Your task to perform on an android device: open app "Booking.com: Hotels and more" (install if not already installed) and enter user name: "misting@outlook.com" and password: "blandly" Image 0: 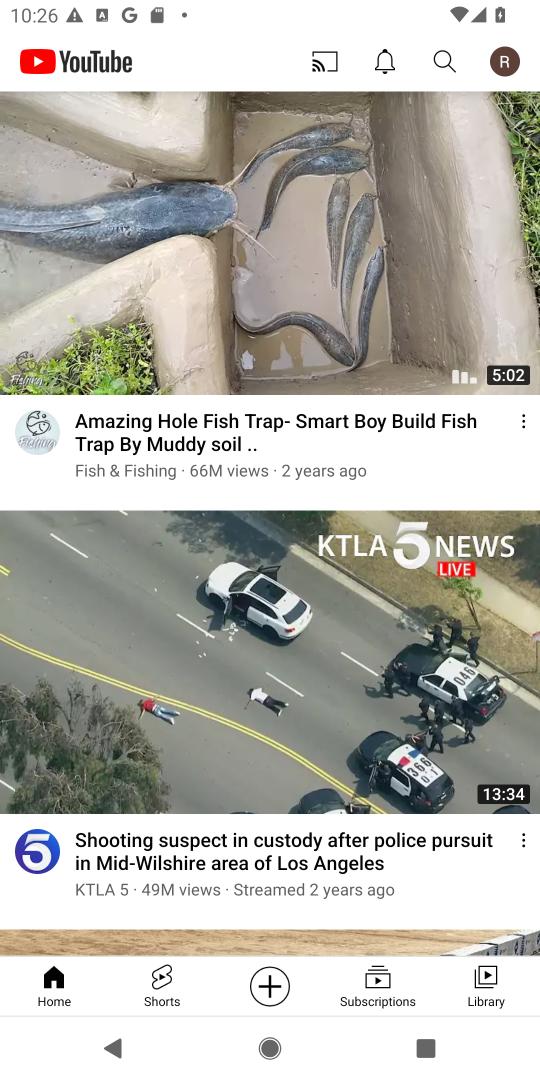
Step 0: press home button
Your task to perform on an android device: open app "Booking.com: Hotels and more" (install if not already installed) and enter user name: "misting@outlook.com" and password: "blandly" Image 1: 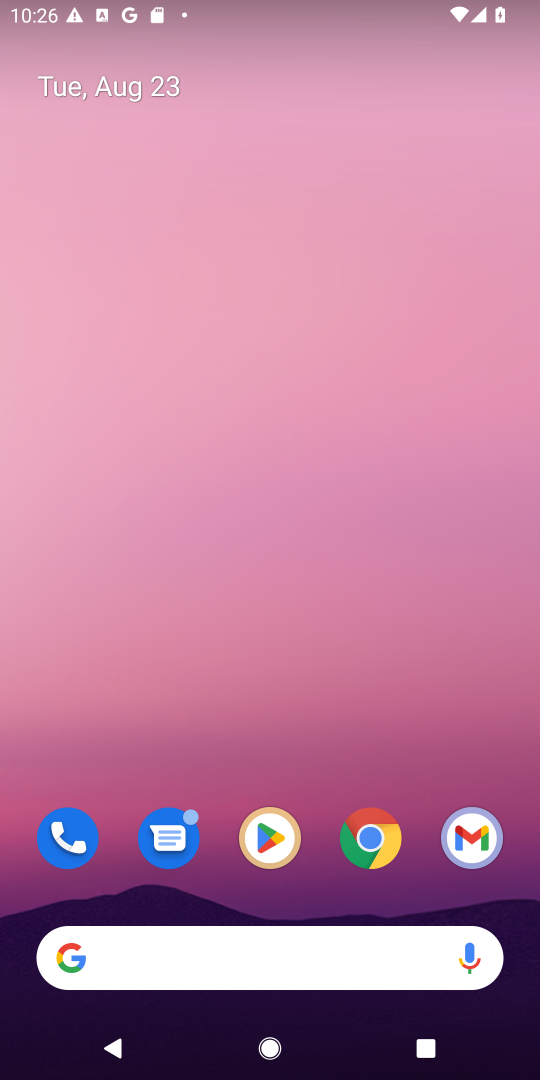
Step 1: click (278, 840)
Your task to perform on an android device: open app "Booking.com: Hotels and more" (install if not already installed) and enter user name: "misting@outlook.com" and password: "blandly" Image 2: 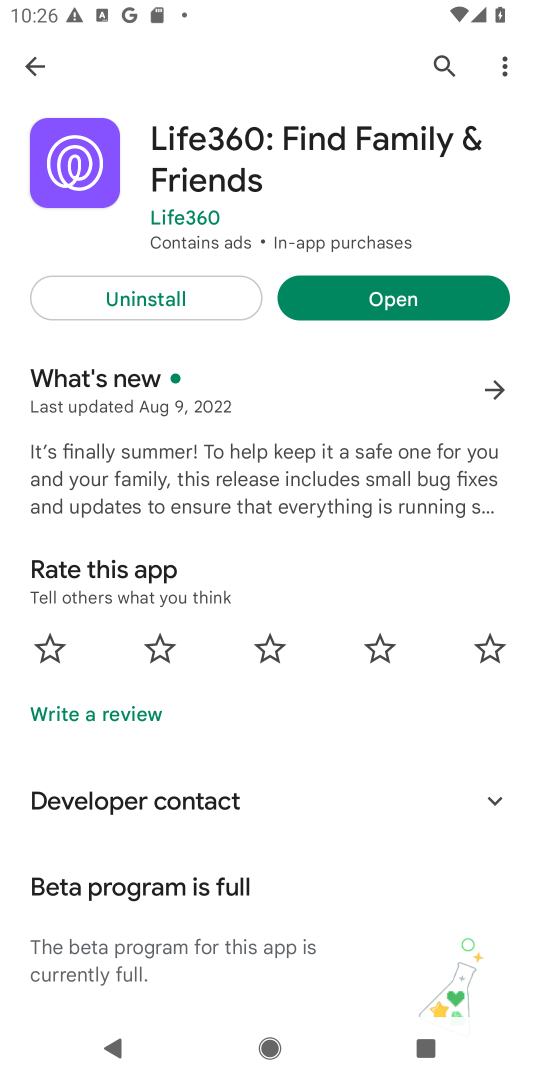
Step 2: click (443, 75)
Your task to perform on an android device: open app "Booking.com: Hotels and more" (install if not already installed) and enter user name: "misting@outlook.com" and password: "blandly" Image 3: 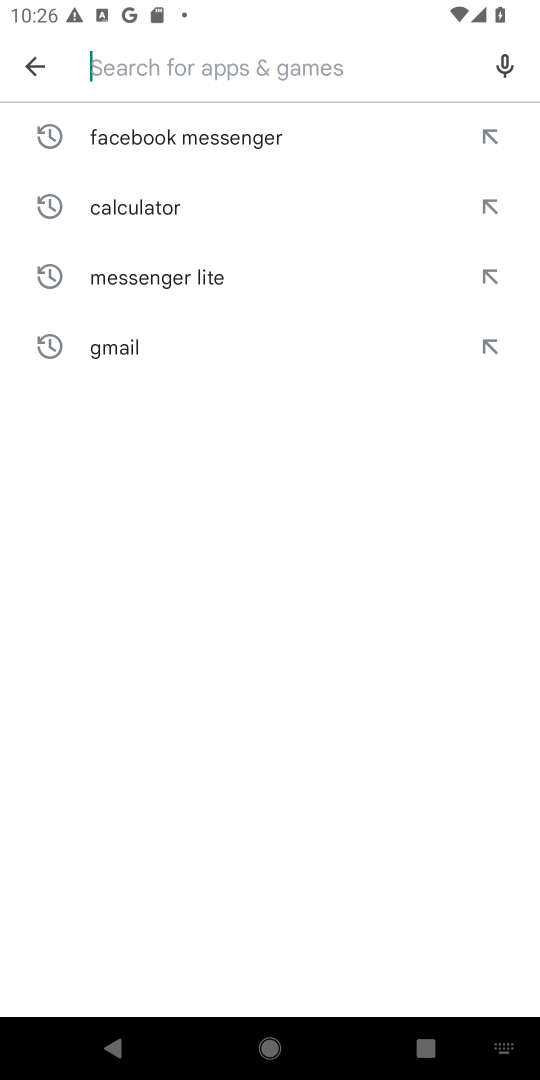
Step 3: click (394, 59)
Your task to perform on an android device: open app "Booking.com: Hotels and more" (install if not already installed) and enter user name: "misting@outlook.com" and password: "blandly" Image 4: 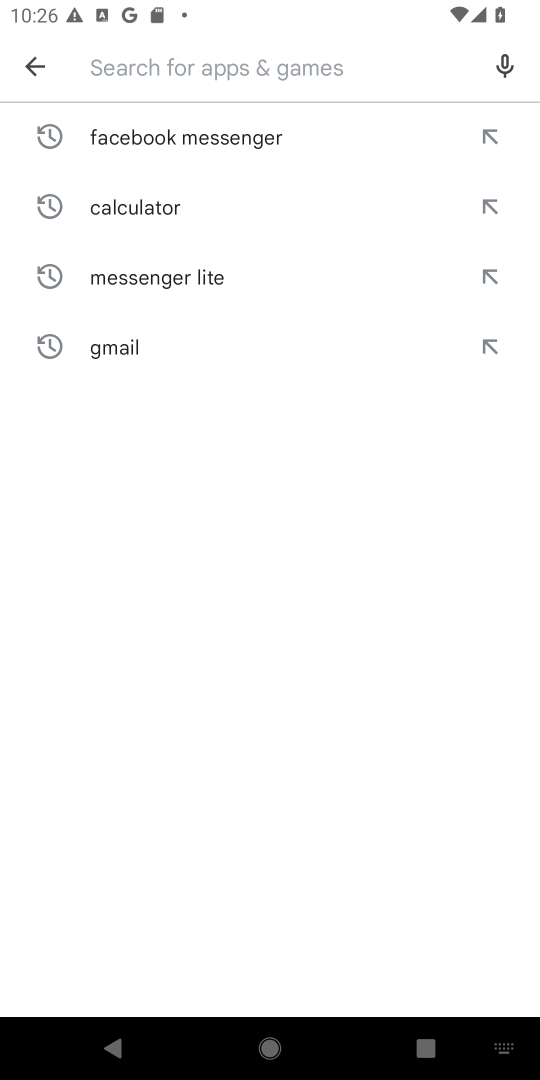
Step 4: type "Booking.com: Hotels and more"
Your task to perform on an android device: open app "Booking.com: Hotels and more" (install if not already installed) and enter user name: "misting@outlook.com" and password: "blandly" Image 5: 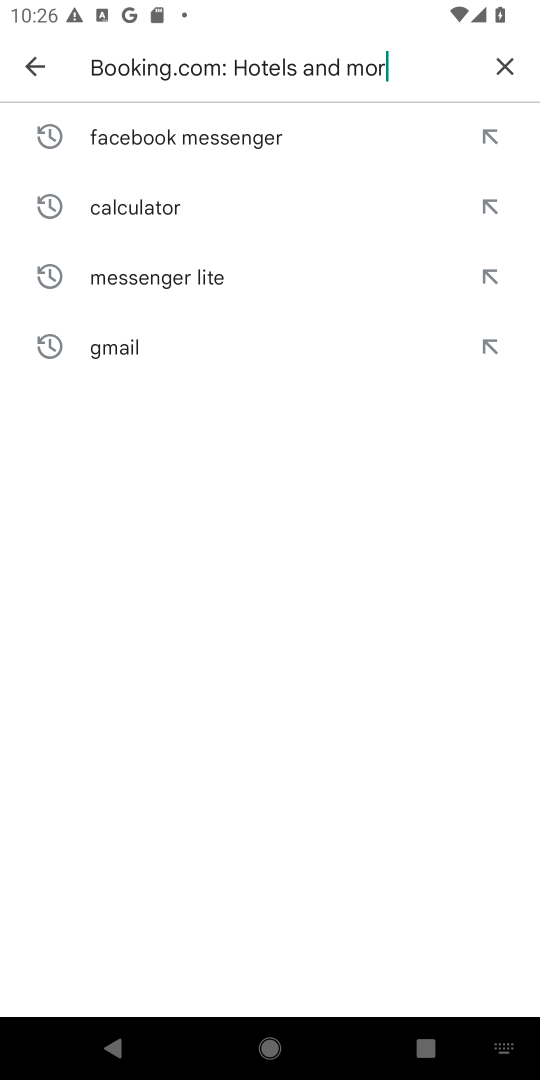
Step 5: type ""
Your task to perform on an android device: open app "Booking.com: Hotels and more" (install if not already installed) and enter user name: "misting@outlook.com" and password: "blandly" Image 6: 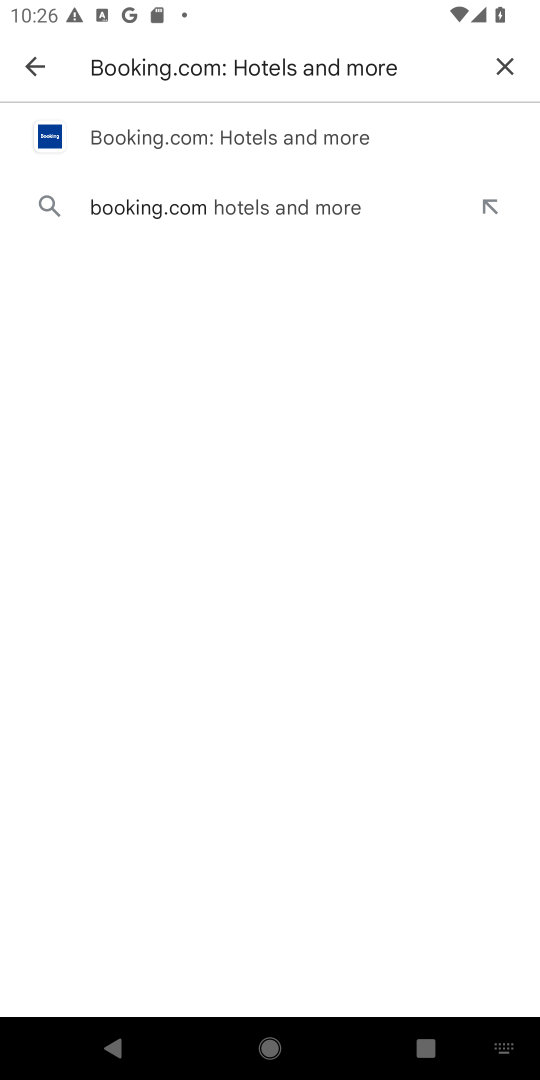
Step 6: click (193, 140)
Your task to perform on an android device: open app "Booking.com: Hotels and more" (install if not already installed) and enter user name: "misting@outlook.com" and password: "blandly" Image 7: 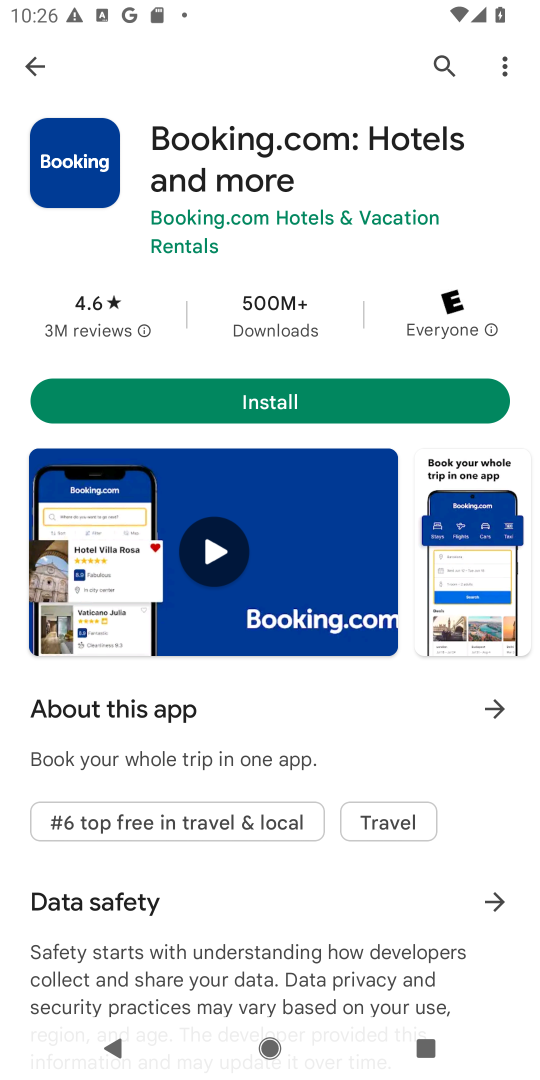
Step 7: click (241, 392)
Your task to perform on an android device: open app "Booking.com: Hotels and more" (install if not already installed) and enter user name: "misting@outlook.com" and password: "blandly" Image 8: 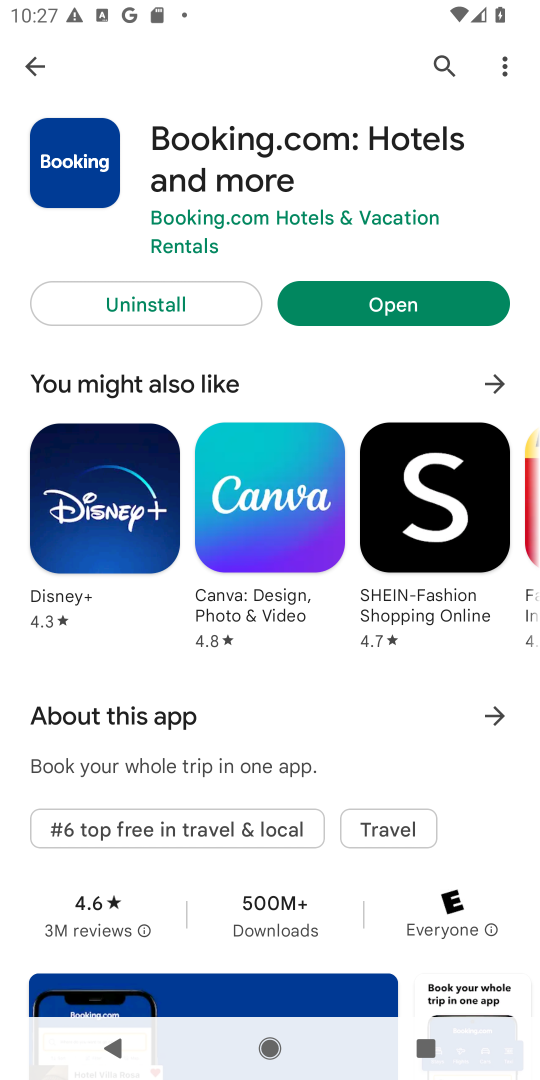
Step 8: click (342, 296)
Your task to perform on an android device: open app "Booking.com: Hotels and more" (install if not already installed) and enter user name: "misting@outlook.com" and password: "blandly" Image 9: 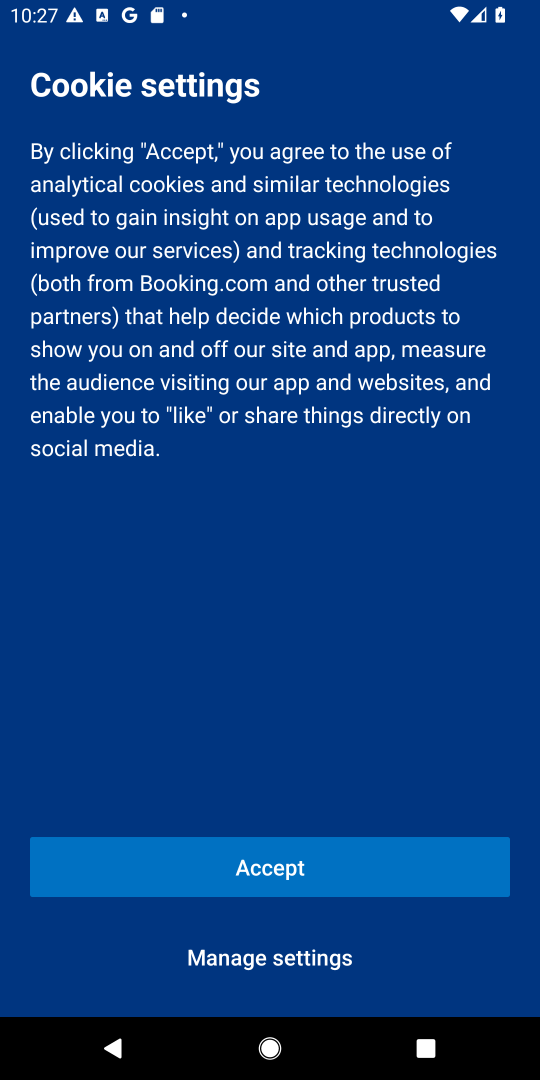
Step 9: task complete